Your task to perform on an android device: open sync settings in chrome Image 0: 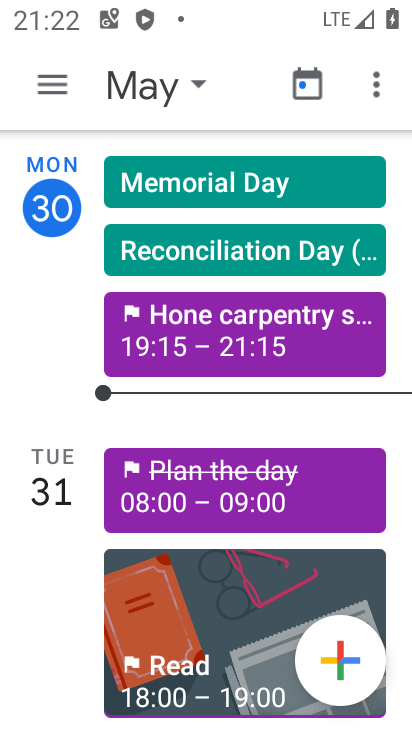
Step 0: press home button
Your task to perform on an android device: open sync settings in chrome Image 1: 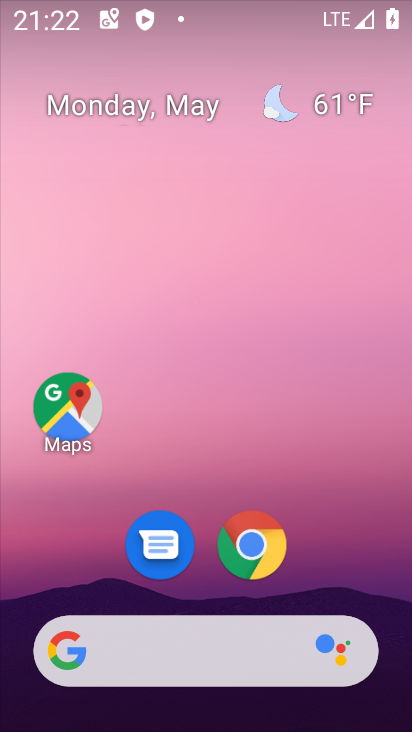
Step 1: click (249, 556)
Your task to perform on an android device: open sync settings in chrome Image 2: 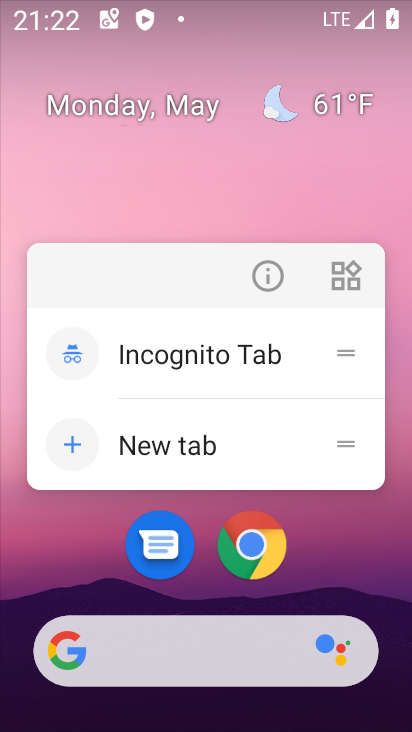
Step 2: click (245, 553)
Your task to perform on an android device: open sync settings in chrome Image 3: 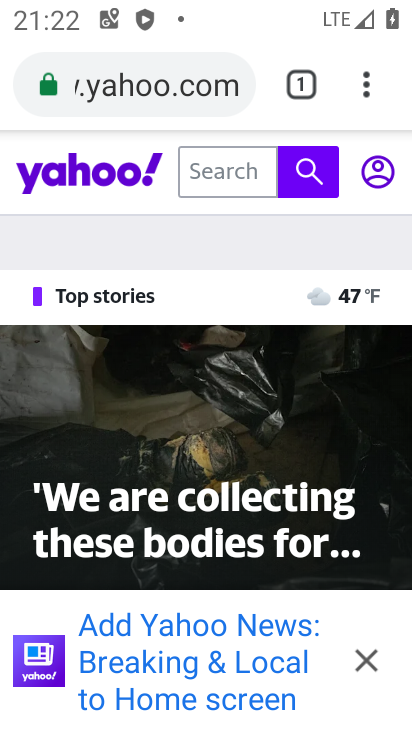
Step 3: drag from (363, 97) to (131, 593)
Your task to perform on an android device: open sync settings in chrome Image 4: 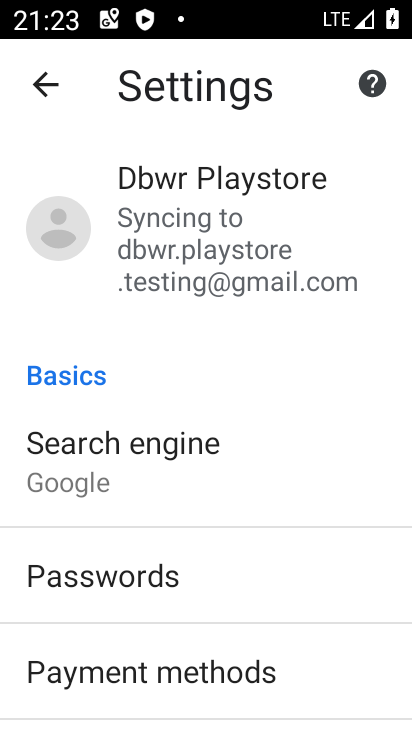
Step 4: click (170, 254)
Your task to perform on an android device: open sync settings in chrome Image 5: 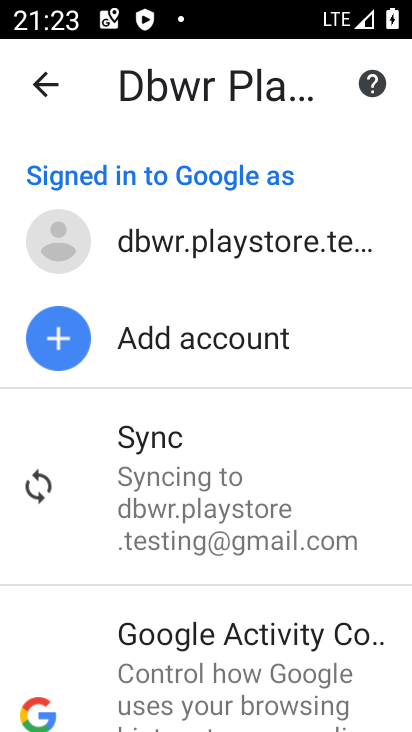
Step 5: click (215, 481)
Your task to perform on an android device: open sync settings in chrome Image 6: 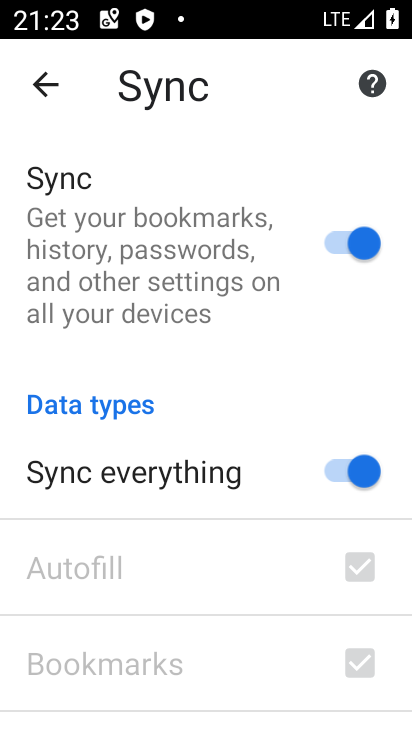
Step 6: task complete